Your task to perform on an android device: open chrome privacy settings Image 0: 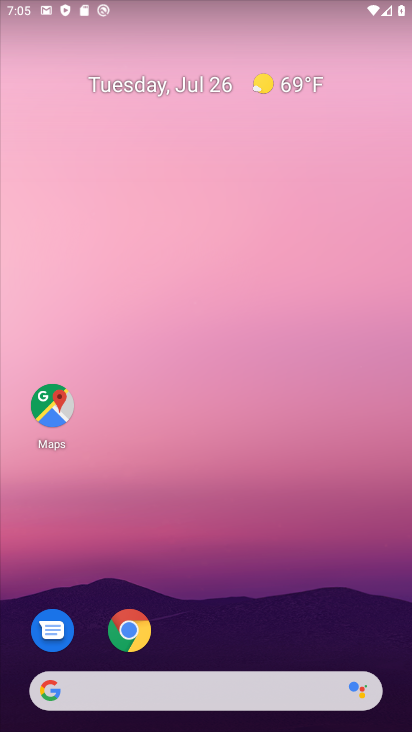
Step 0: drag from (252, 600) to (255, 102)
Your task to perform on an android device: open chrome privacy settings Image 1: 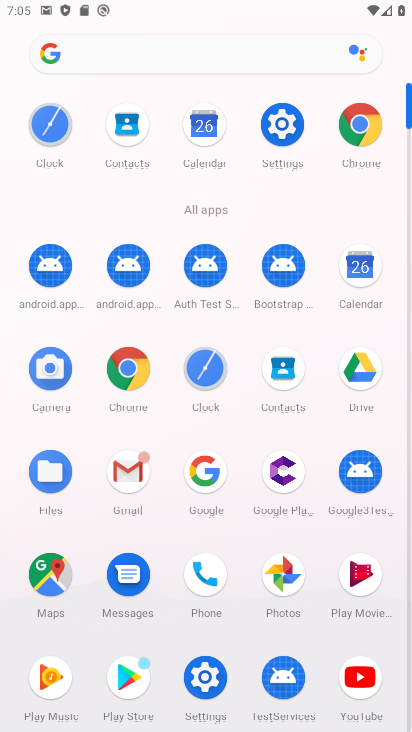
Step 1: click (122, 387)
Your task to perform on an android device: open chrome privacy settings Image 2: 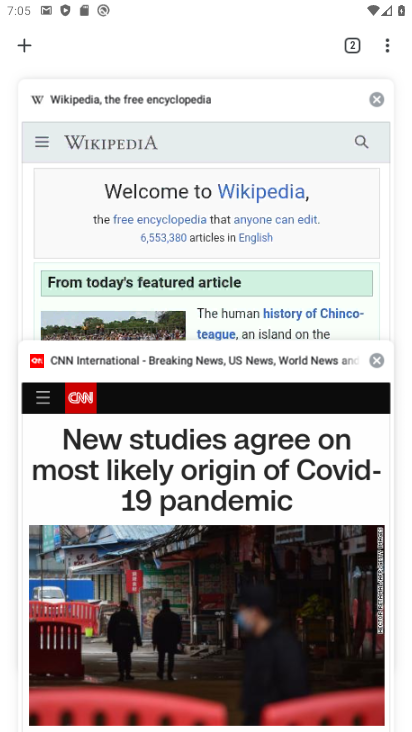
Step 2: click (388, 51)
Your task to perform on an android device: open chrome privacy settings Image 3: 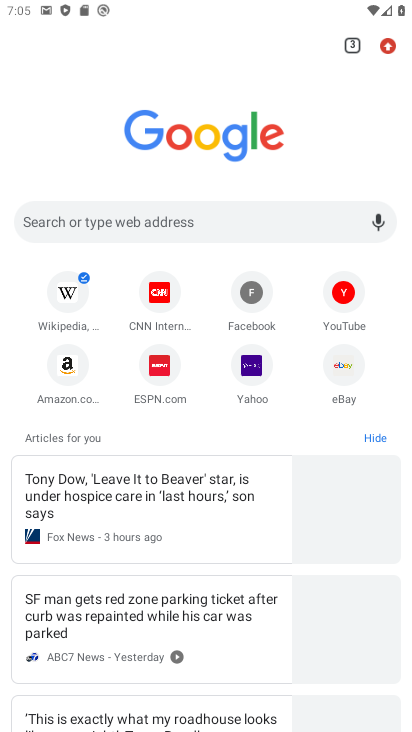
Step 3: click (388, 51)
Your task to perform on an android device: open chrome privacy settings Image 4: 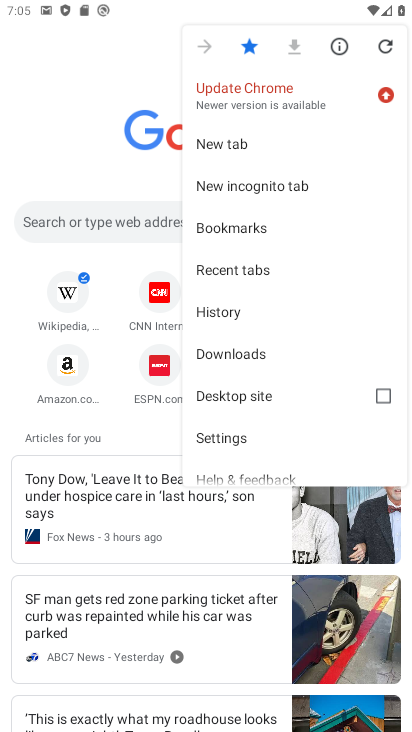
Step 4: click (235, 432)
Your task to perform on an android device: open chrome privacy settings Image 5: 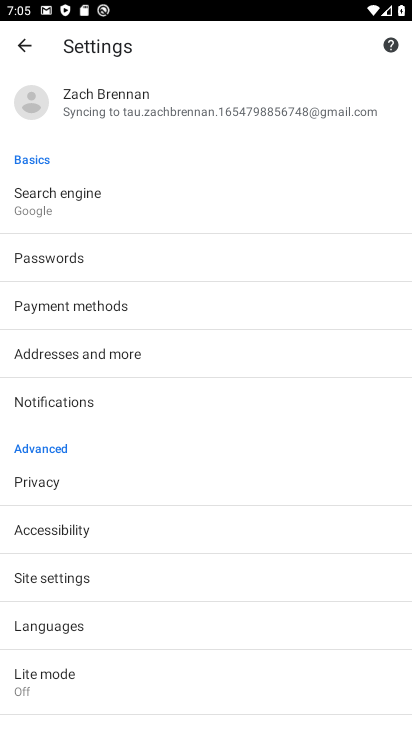
Step 5: click (114, 480)
Your task to perform on an android device: open chrome privacy settings Image 6: 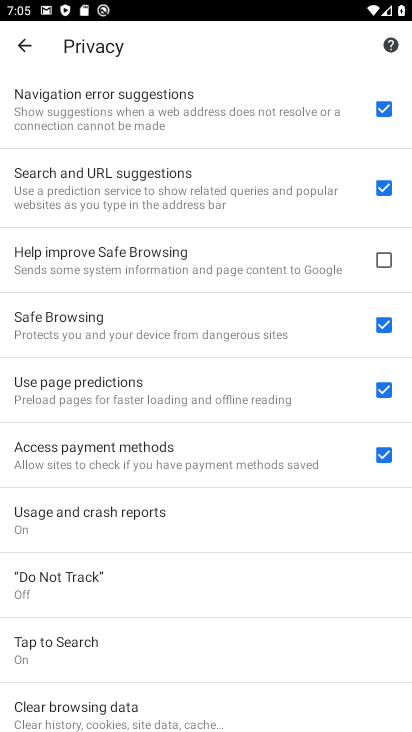
Step 6: task complete